Your task to perform on an android device: toggle sleep mode Image 0: 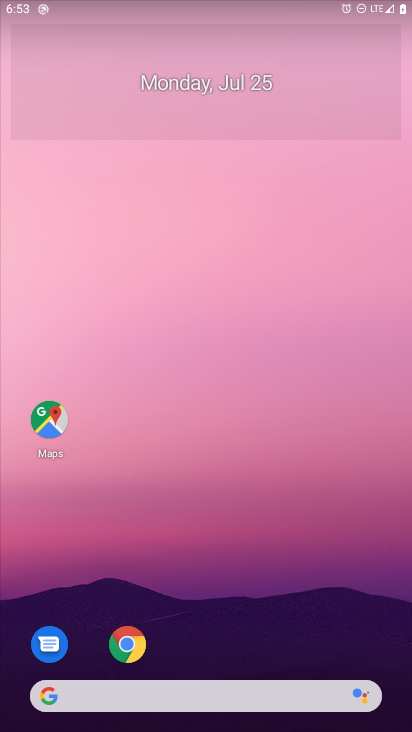
Step 0: press home button
Your task to perform on an android device: toggle sleep mode Image 1: 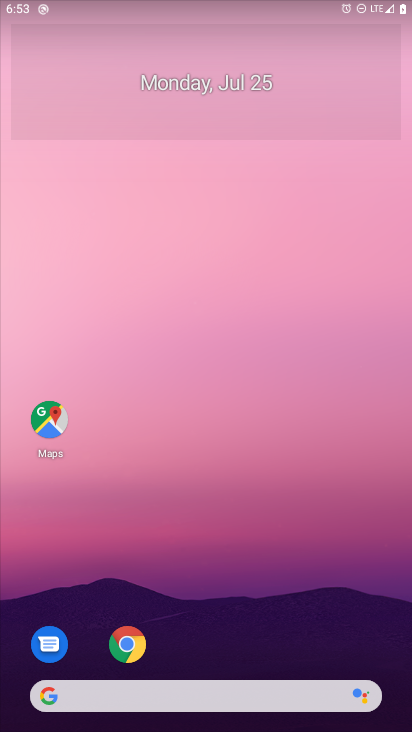
Step 1: drag from (240, 476) to (258, 145)
Your task to perform on an android device: toggle sleep mode Image 2: 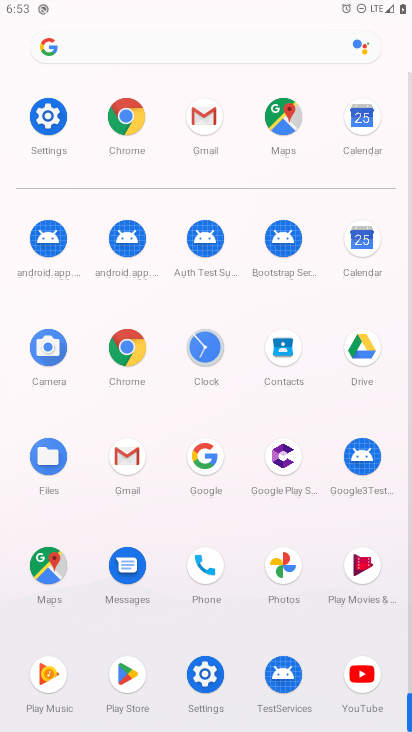
Step 2: click (60, 117)
Your task to perform on an android device: toggle sleep mode Image 3: 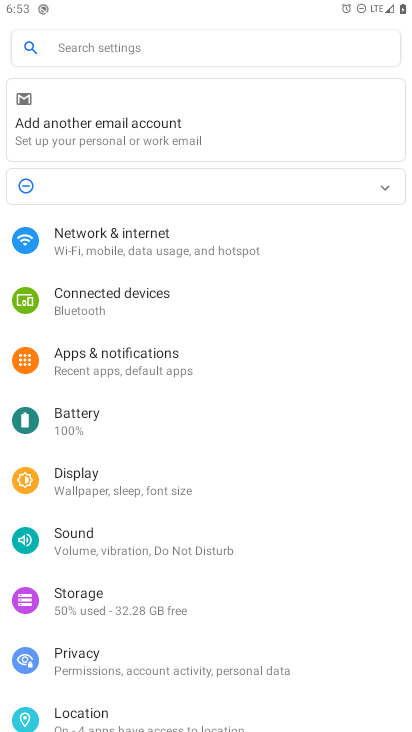
Step 3: click (66, 499)
Your task to perform on an android device: toggle sleep mode Image 4: 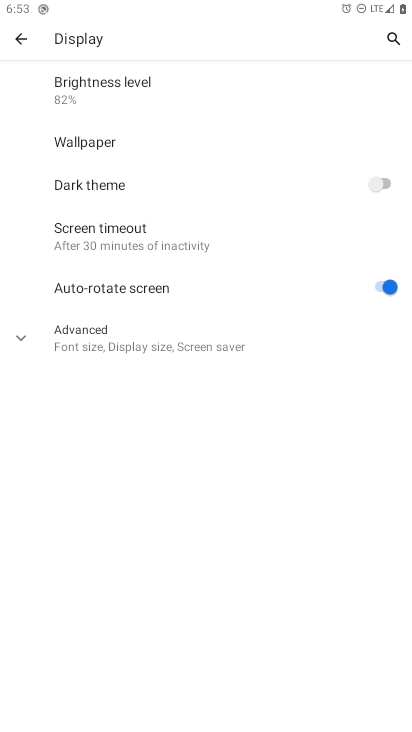
Step 4: task complete